Your task to perform on an android device: Open Maps and search for coffee Image 0: 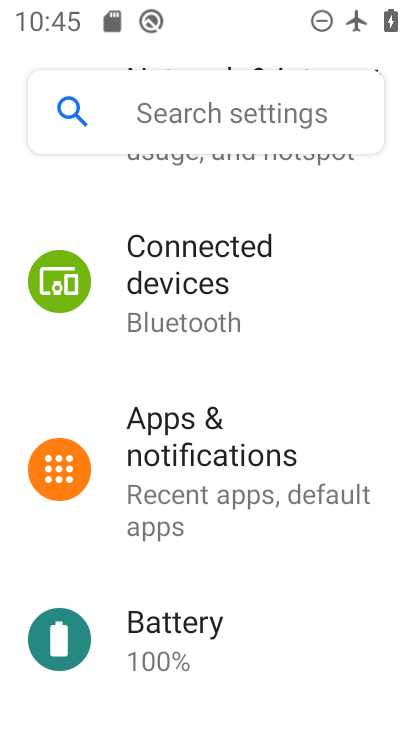
Step 0: press home button
Your task to perform on an android device: Open Maps and search for coffee Image 1: 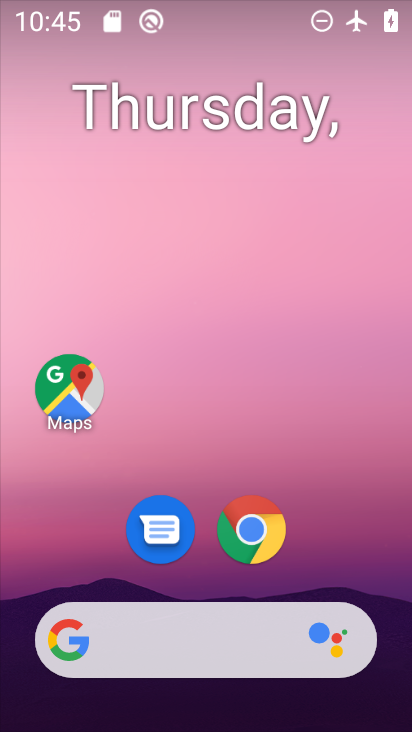
Step 1: click (87, 377)
Your task to perform on an android device: Open Maps and search for coffee Image 2: 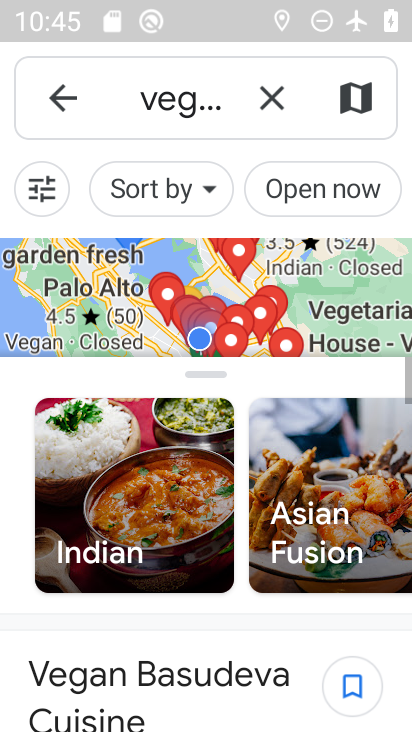
Step 2: click (271, 96)
Your task to perform on an android device: Open Maps and search for coffee Image 3: 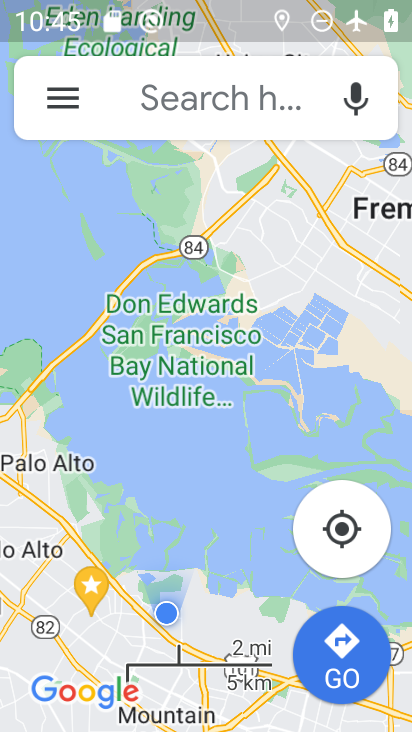
Step 3: click (255, 106)
Your task to perform on an android device: Open Maps and search for coffee Image 4: 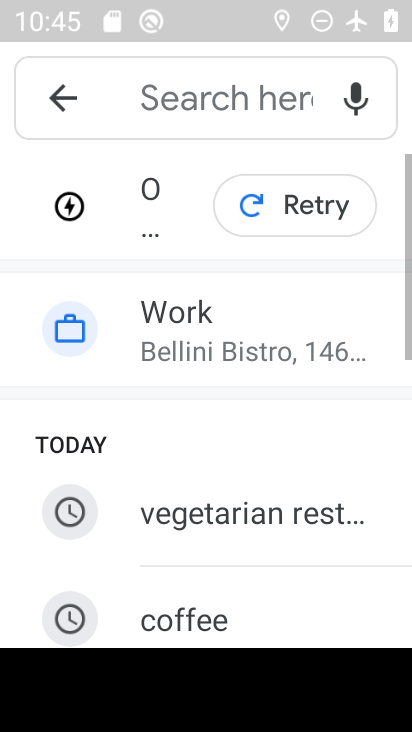
Step 4: click (210, 622)
Your task to perform on an android device: Open Maps and search for coffee Image 5: 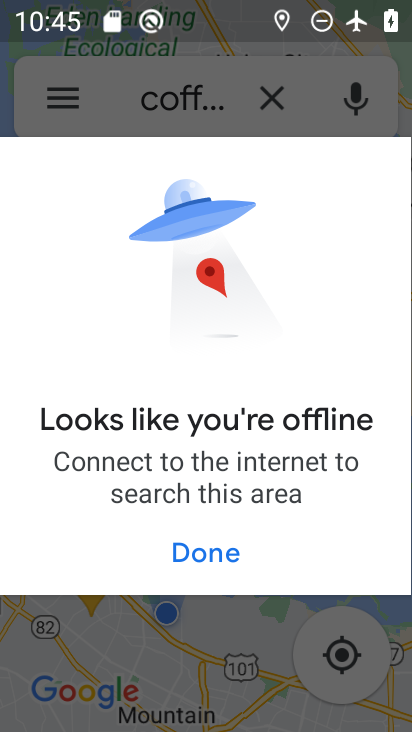
Step 5: task complete